Your task to perform on an android device: Go to calendar. Show me events next week Image 0: 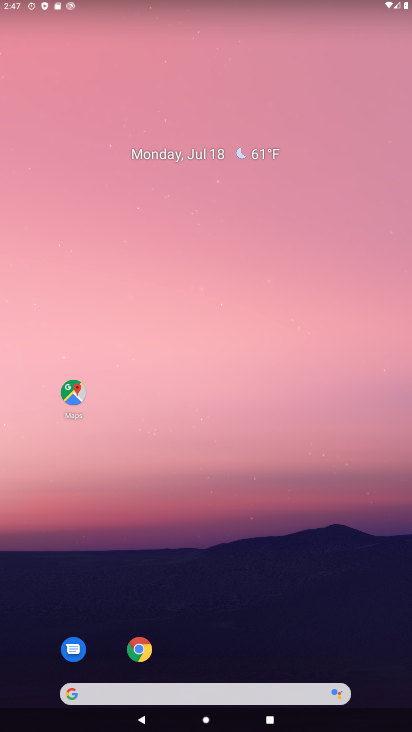
Step 0: drag from (35, 688) to (195, 63)
Your task to perform on an android device: Go to calendar. Show me events next week Image 1: 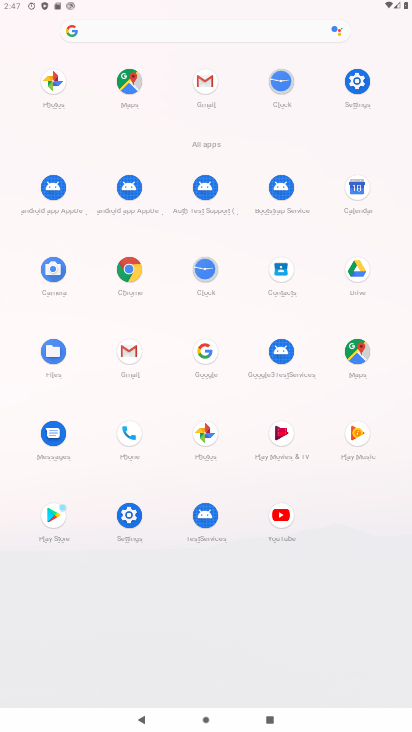
Step 1: click (359, 192)
Your task to perform on an android device: Go to calendar. Show me events next week Image 2: 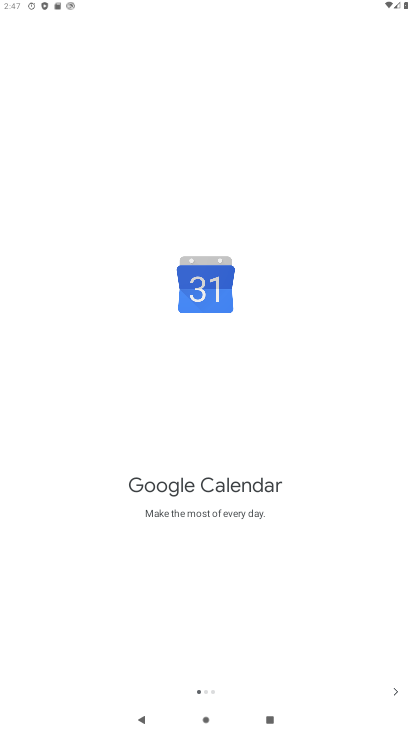
Step 2: click (397, 686)
Your task to perform on an android device: Go to calendar. Show me events next week Image 3: 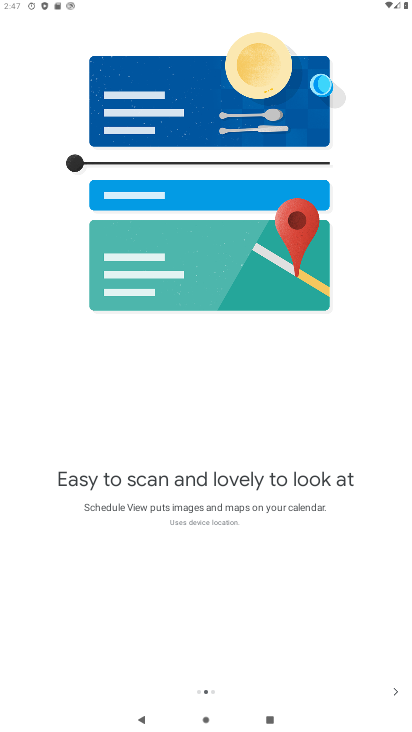
Step 3: click (390, 681)
Your task to perform on an android device: Go to calendar. Show me events next week Image 4: 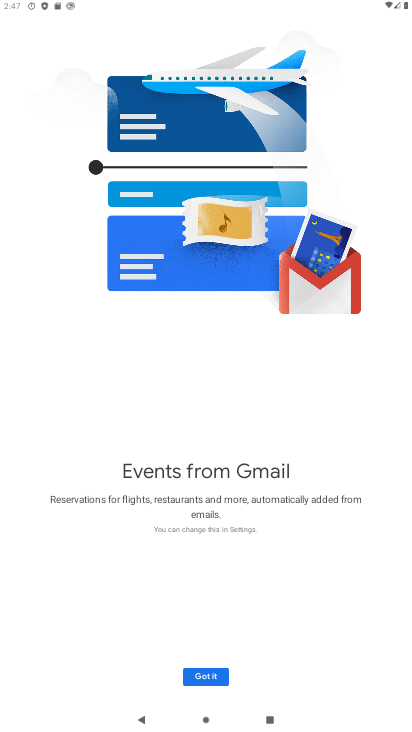
Step 4: click (216, 676)
Your task to perform on an android device: Go to calendar. Show me events next week Image 5: 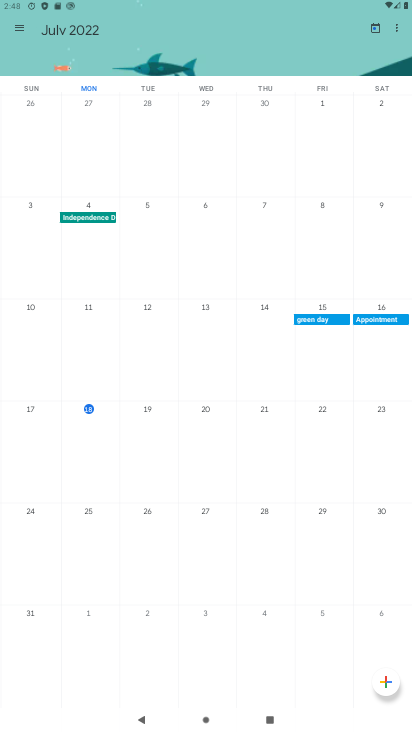
Step 5: task complete